Your task to perform on an android device: Go to internet settings Image 0: 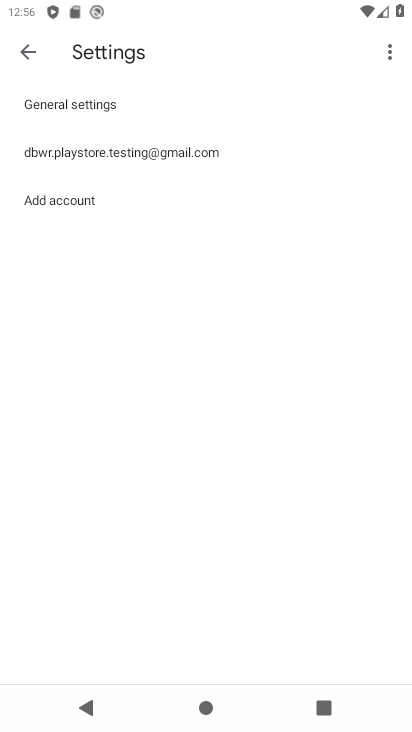
Step 0: press home button
Your task to perform on an android device: Go to internet settings Image 1: 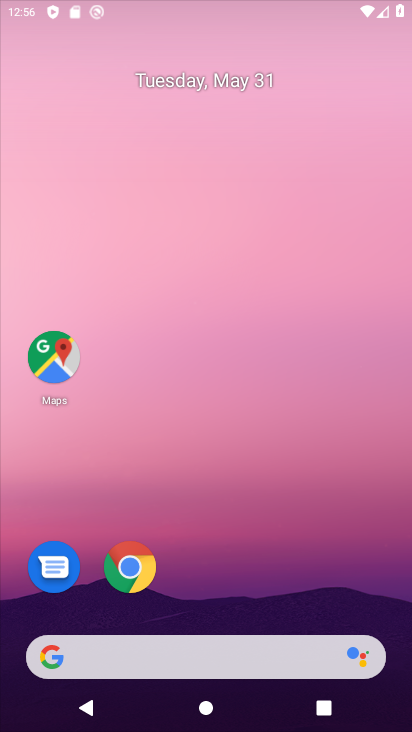
Step 1: drag from (285, 538) to (244, 57)
Your task to perform on an android device: Go to internet settings Image 2: 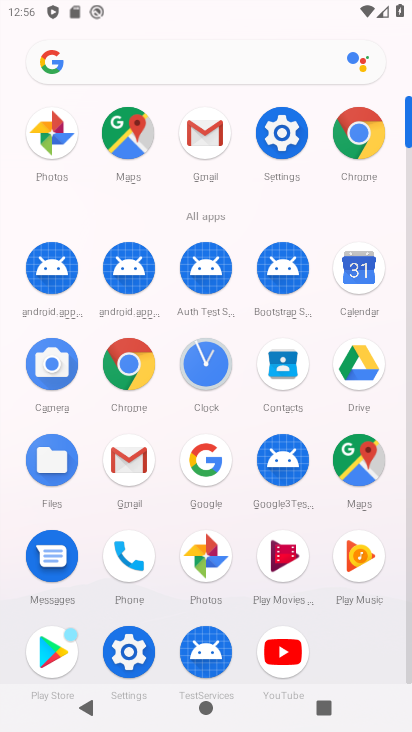
Step 2: click (282, 124)
Your task to perform on an android device: Go to internet settings Image 3: 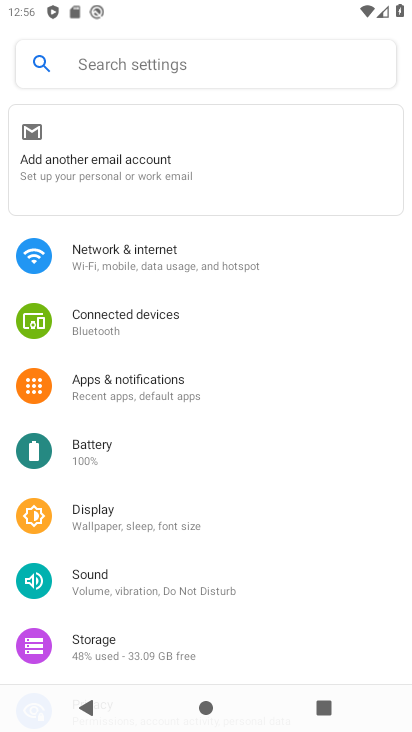
Step 3: click (189, 259)
Your task to perform on an android device: Go to internet settings Image 4: 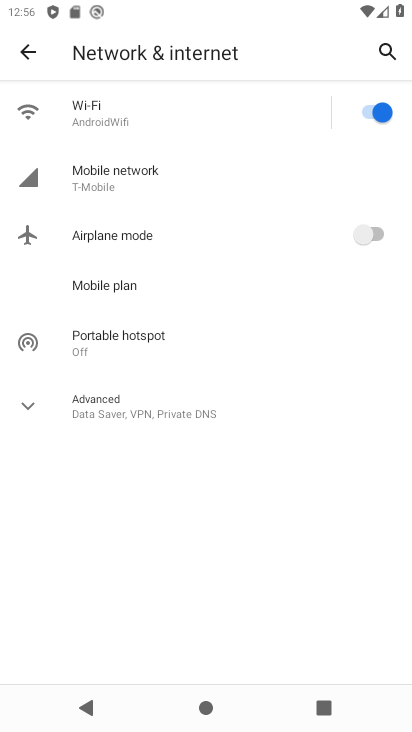
Step 4: click (164, 407)
Your task to perform on an android device: Go to internet settings Image 5: 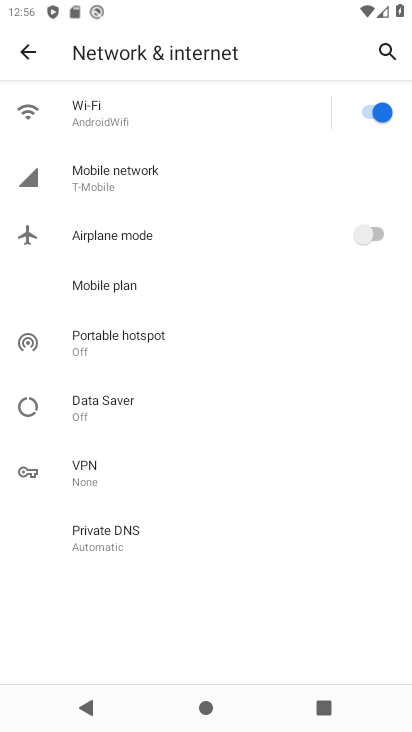
Step 5: task complete